Your task to perform on an android device: Do I have any events this weekend? Image 0: 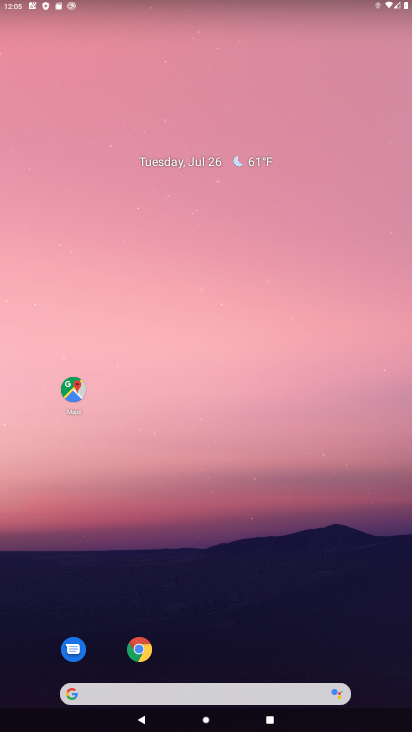
Step 0: drag from (374, 504) to (342, 131)
Your task to perform on an android device: Do I have any events this weekend? Image 1: 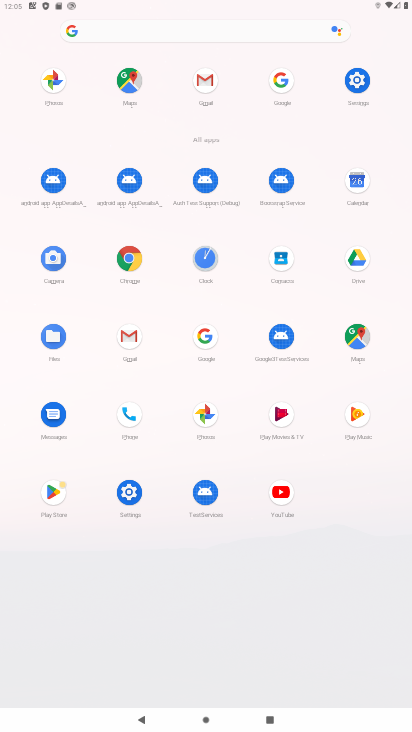
Step 1: click (353, 88)
Your task to perform on an android device: Do I have any events this weekend? Image 2: 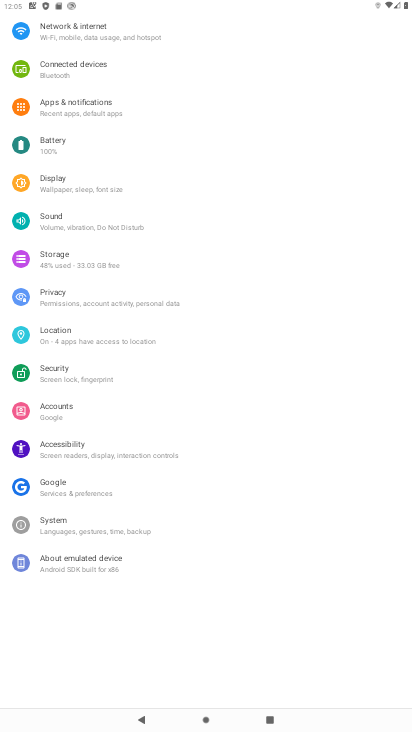
Step 2: press home button
Your task to perform on an android device: Do I have any events this weekend? Image 3: 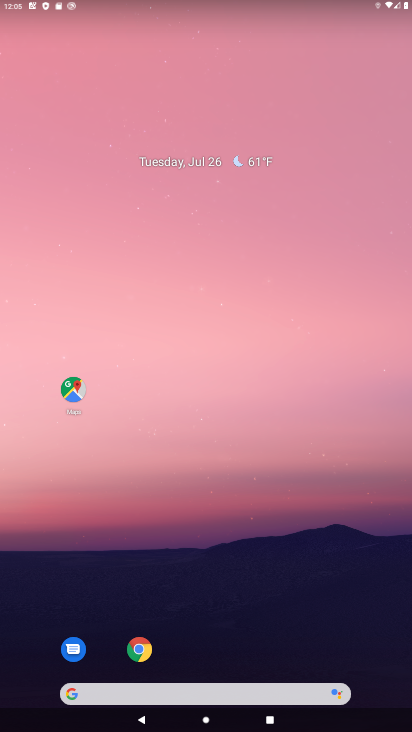
Step 3: drag from (379, 712) to (326, 141)
Your task to perform on an android device: Do I have any events this weekend? Image 4: 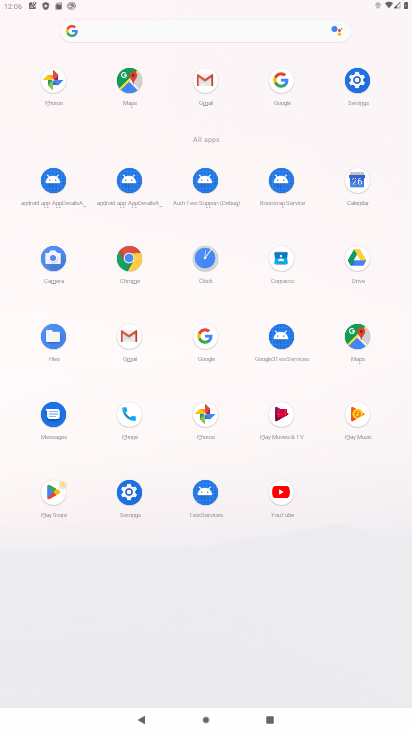
Step 4: click (358, 182)
Your task to perform on an android device: Do I have any events this weekend? Image 5: 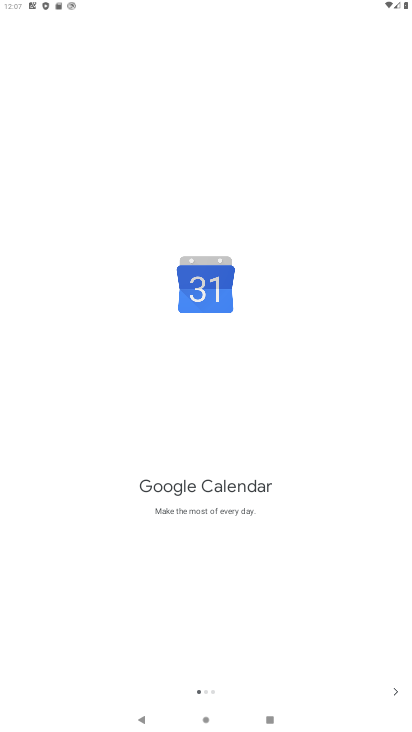
Step 5: click (388, 694)
Your task to perform on an android device: Do I have any events this weekend? Image 6: 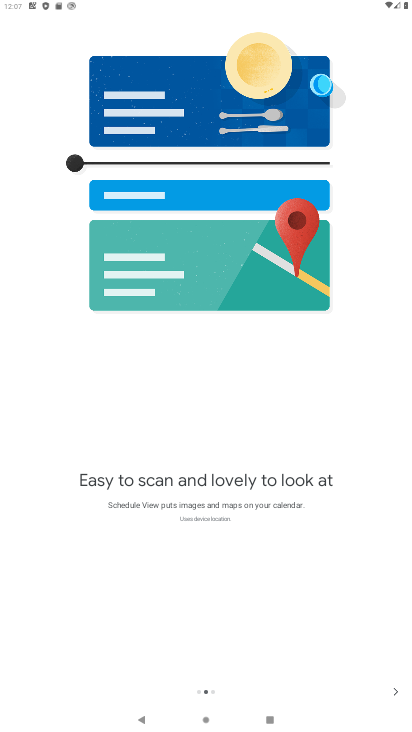
Step 6: click (388, 694)
Your task to perform on an android device: Do I have any events this weekend? Image 7: 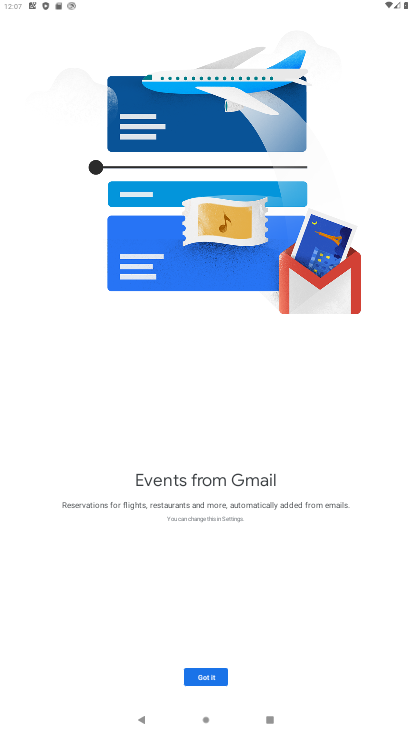
Step 7: click (211, 664)
Your task to perform on an android device: Do I have any events this weekend? Image 8: 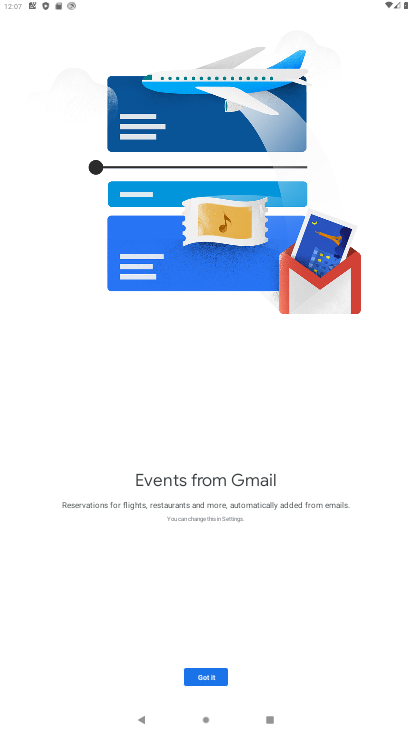
Step 8: click (207, 683)
Your task to perform on an android device: Do I have any events this weekend? Image 9: 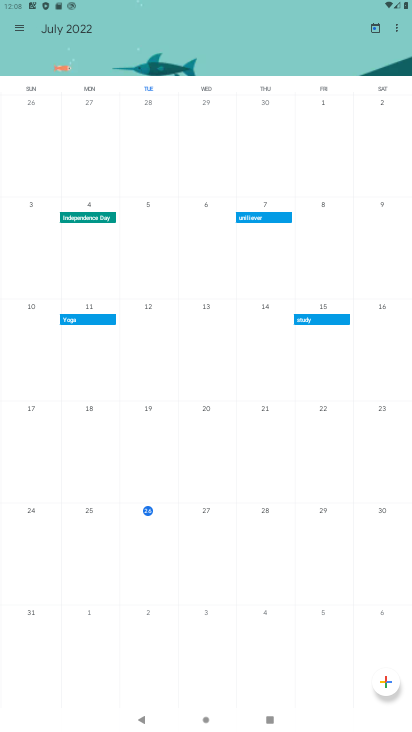
Step 9: press home button
Your task to perform on an android device: Do I have any events this weekend? Image 10: 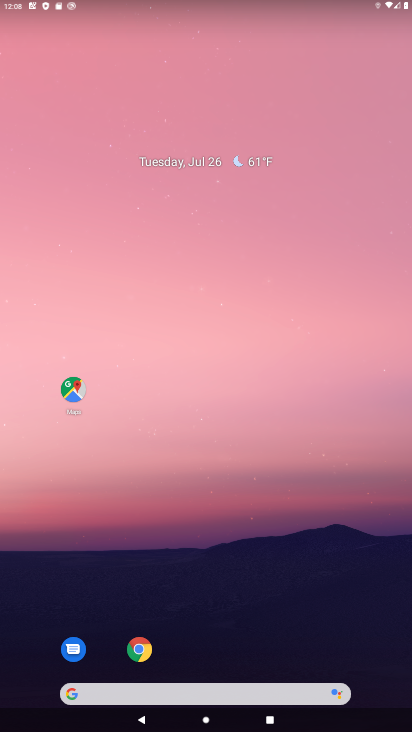
Step 10: drag from (401, 712) to (309, 92)
Your task to perform on an android device: Do I have any events this weekend? Image 11: 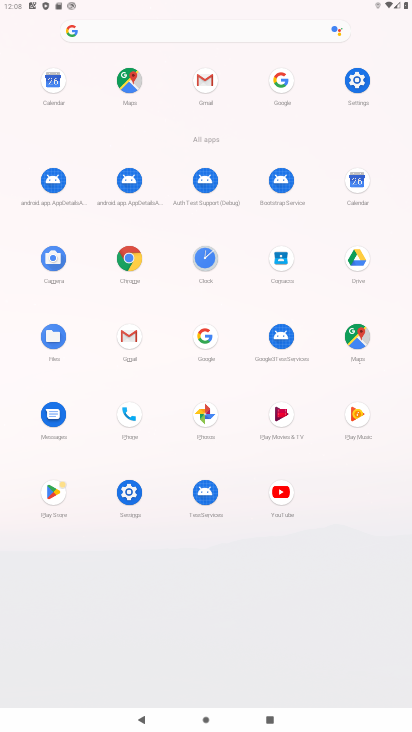
Step 11: click (348, 182)
Your task to perform on an android device: Do I have any events this weekend? Image 12: 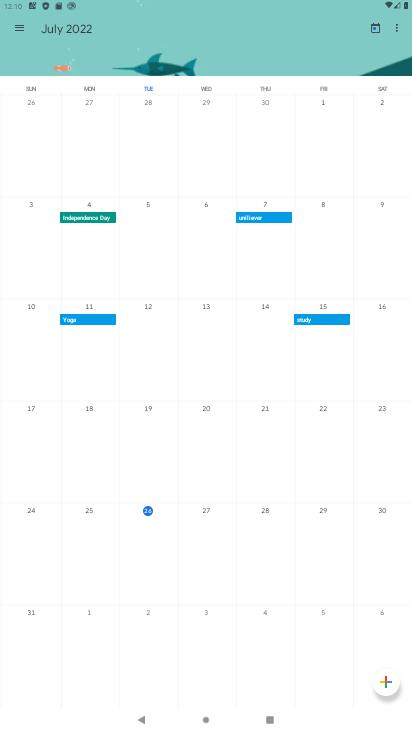
Step 12: click (26, 34)
Your task to perform on an android device: Do I have any events this weekend? Image 13: 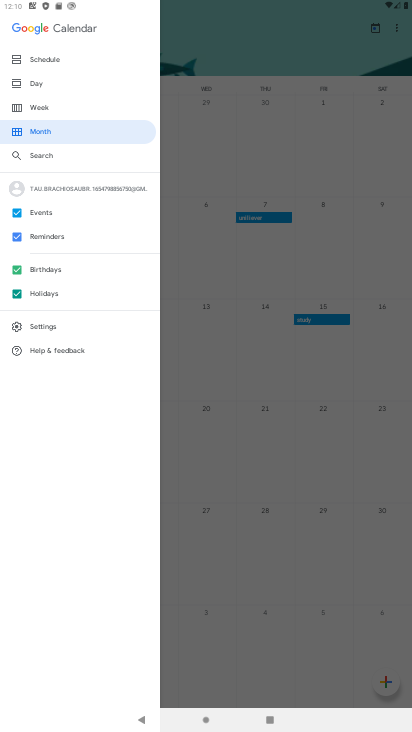
Step 13: click (35, 109)
Your task to perform on an android device: Do I have any events this weekend? Image 14: 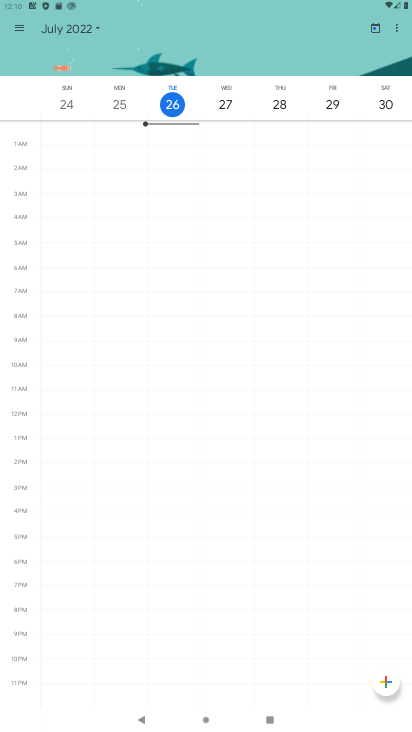
Step 14: click (22, 26)
Your task to perform on an android device: Do I have any events this weekend? Image 15: 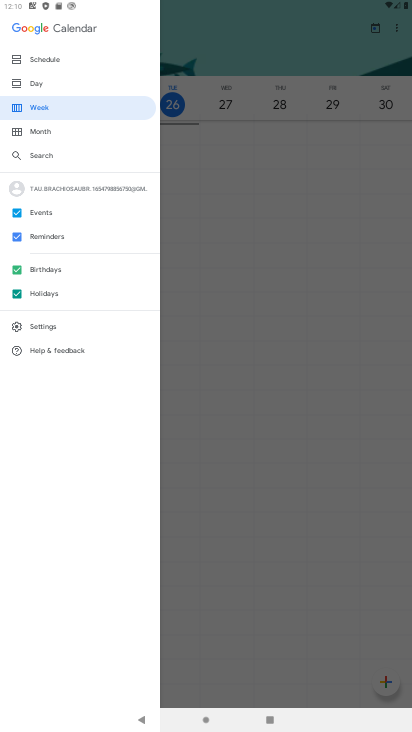
Step 15: task complete